Your task to perform on an android device: toggle priority inbox in the gmail app Image 0: 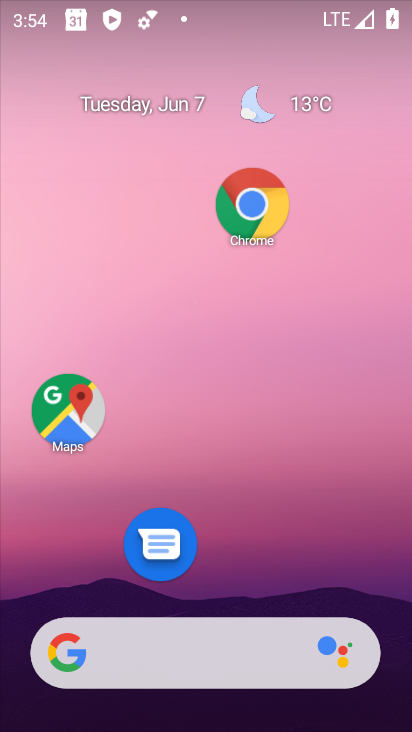
Step 0: drag from (263, 582) to (283, 99)
Your task to perform on an android device: toggle priority inbox in the gmail app Image 1: 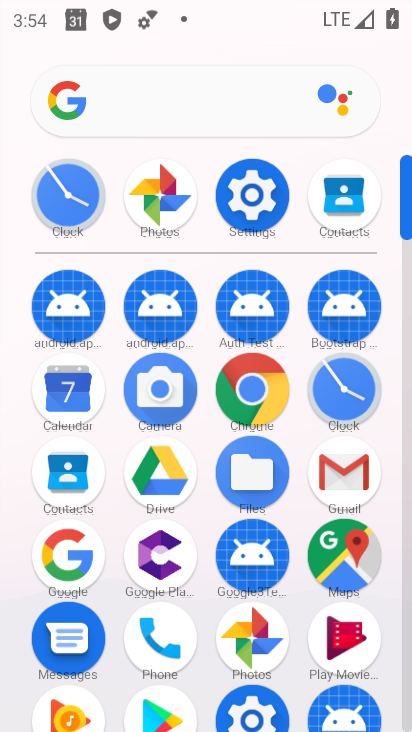
Step 1: click (340, 467)
Your task to perform on an android device: toggle priority inbox in the gmail app Image 2: 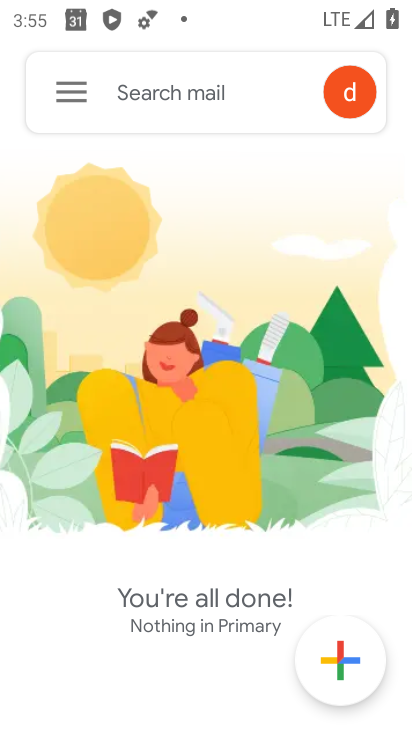
Step 2: click (76, 79)
Your task to perform on an android device: toggle priority inbox in the gmail app Image 3: 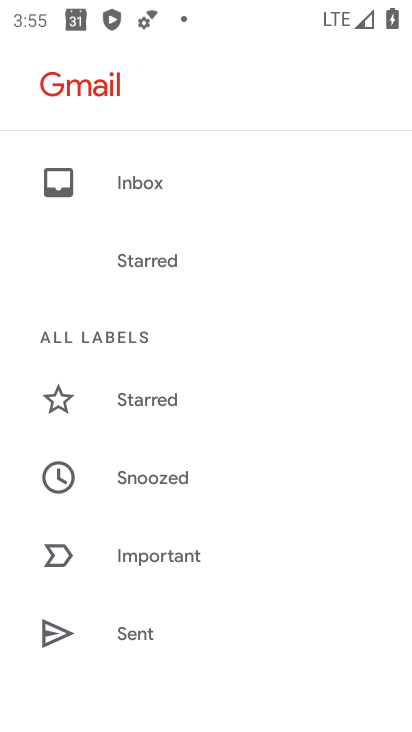
Step 3: drag from (219, 604) to (207, 312)
Your task to perform on an android device: toggle priority inbox in the gmail app Image 4: 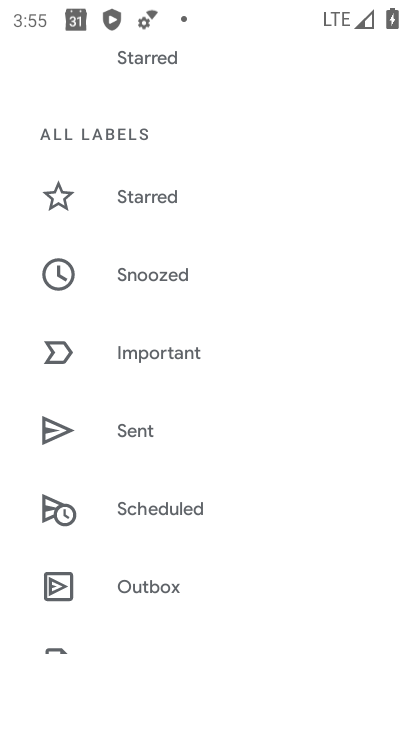
Step 4: drag from (207, 224) to (207, 107)
Your task to perform on an android device: toggle priority inbox in the gmail app Image 5: 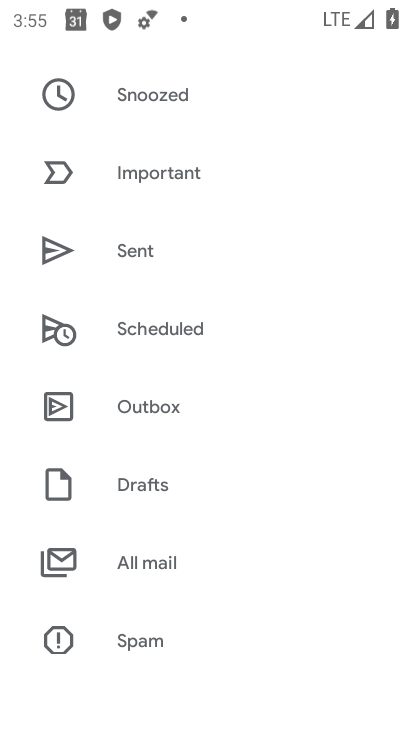
Step 5: drag from (222, 636) to (242, 317)
Your task to perform on an android device: toggle priority inbox in the gmail app Image 6: 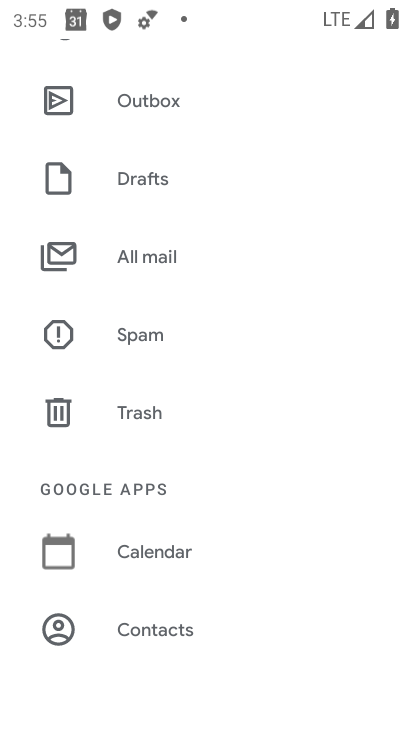
Step 6: drag from (240, 612) to (249, 175)
Your task to perform on an android device: toggle priority inbox in the gmail app Image 7: 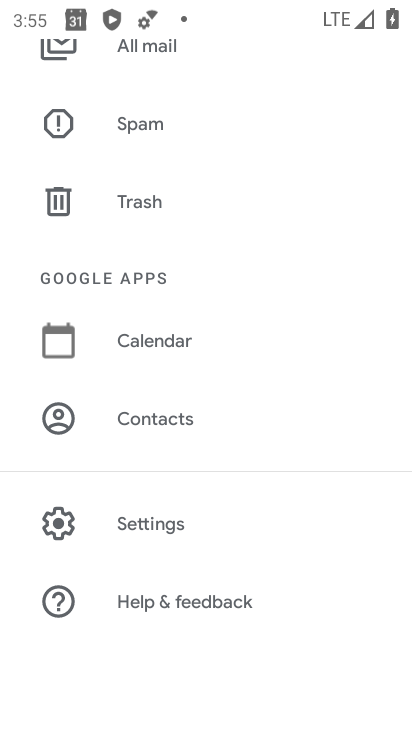
Step 7: click (201, 520)
Your task to perform on an android device: toggle priority inbox in the gmail app Image 8: 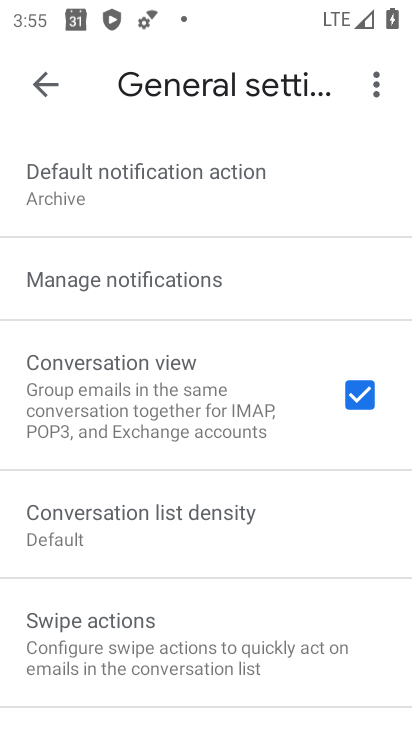
Step 8: click (59, 87)
Your task to perform on an android device: toggle priority inbox in the gmail app Image 9: 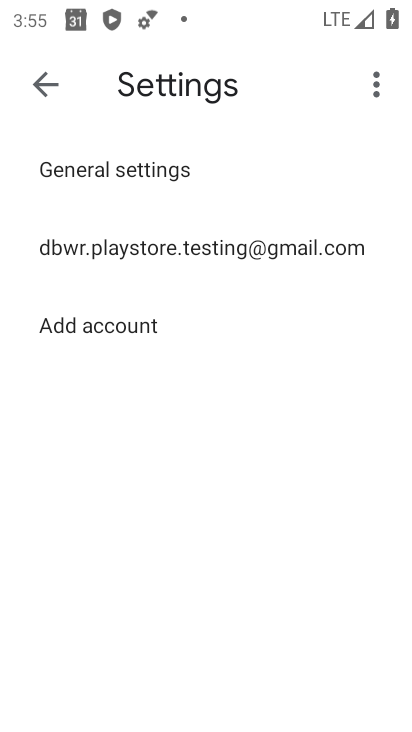
Step 9: click (204, 245)
Your task to perform on an android device: toggle priority inbox in the gmail app Image 10: 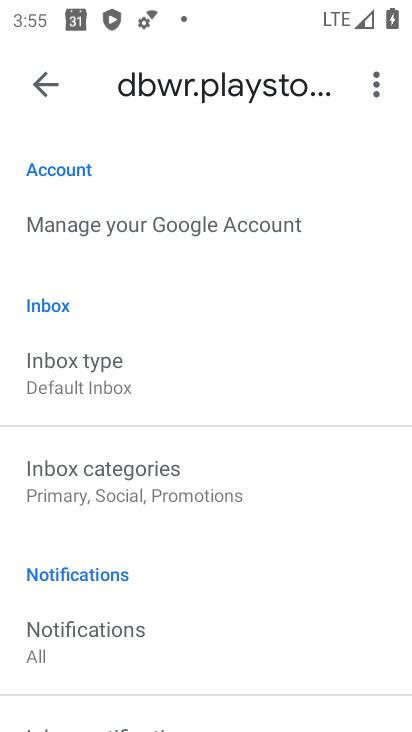
Step 10: click (134, 371)
Your task to perform on an android device: toggle priority inbox in the gmail app Image 11: 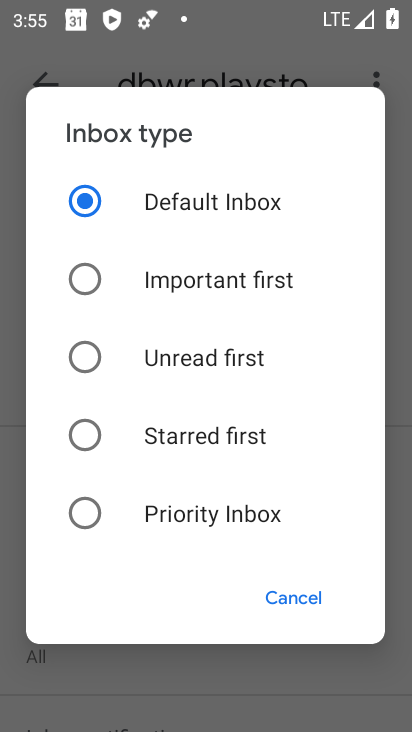
Step 11: click (91, 513)
Your task to perform on an android device: toggle priority inbox in the gmail app Image 12: 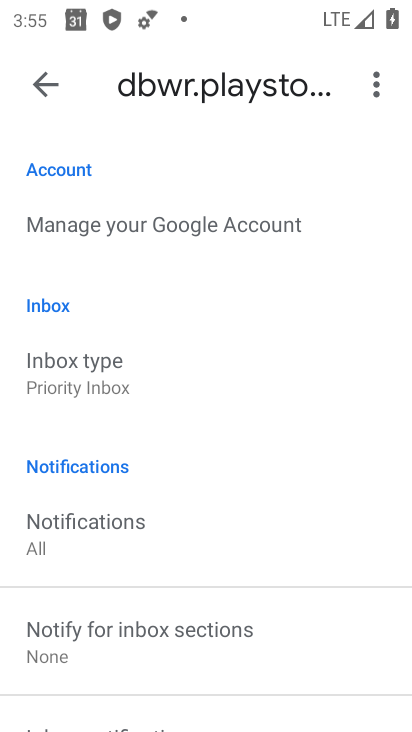
Step 12: task complete